Your task to perform on an android device: Open Chrome and go to the settings page Image 0: 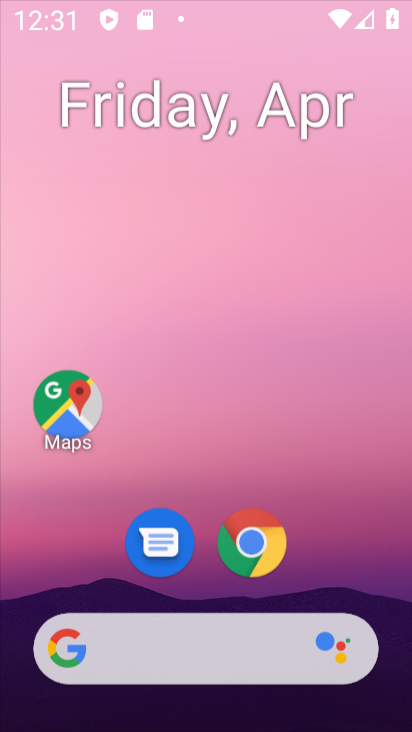
Step 0: press home button
Your task to perform on an android device: Open Chrome and go to the settings page Image 1: 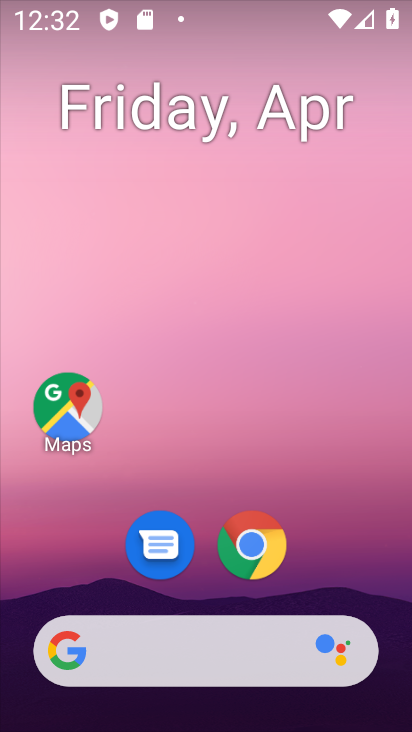
Step 1: click (249, 540)
Your task to perform on an android device: Open Chrome and go to the settings page Image 2: 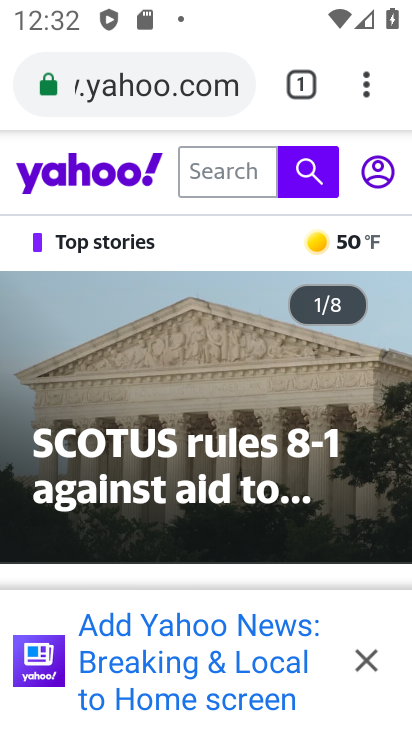
Step 2: click (374, 88)
Your task to perform on an android device: Open Chrome and go to the settings page Image 3: 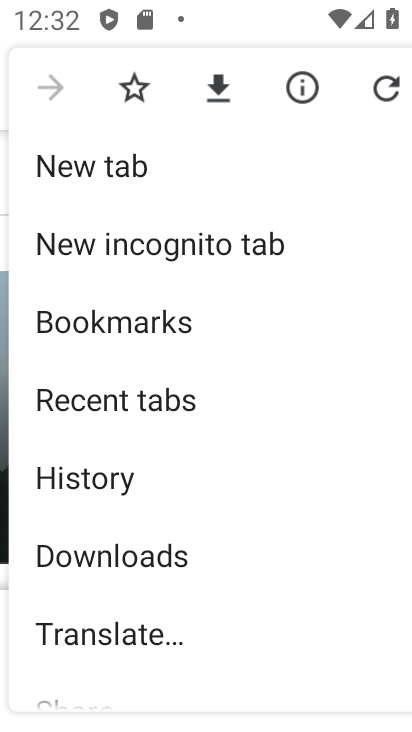
Step 3: drag from (179, 632) to (165, 229)
Your task to perform on an android device: Open Chrome and go to the settings page Image 4: 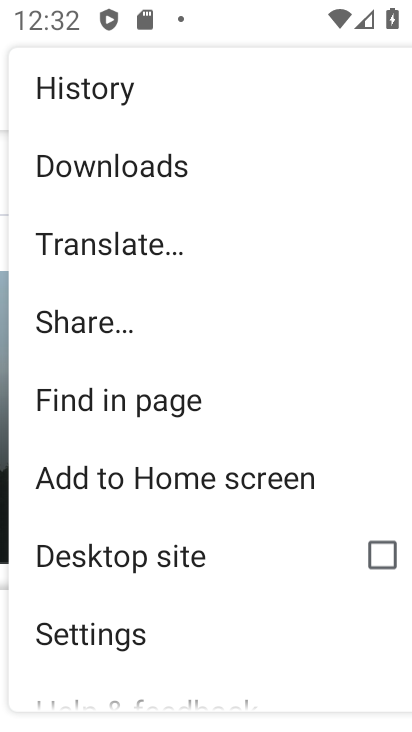
Step 4: click (100, 618)
Your task to perform on an android device: Open Chrome and go to the settings page Image 5: 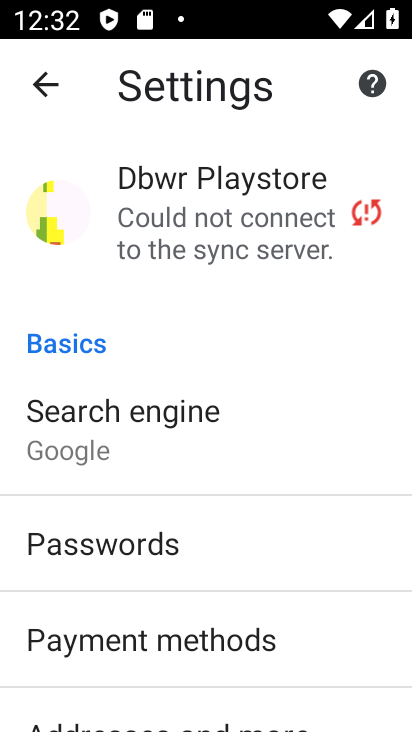
Step 5: task complete